Your task to perform on an android device: open app "Google Chat" Image 0: 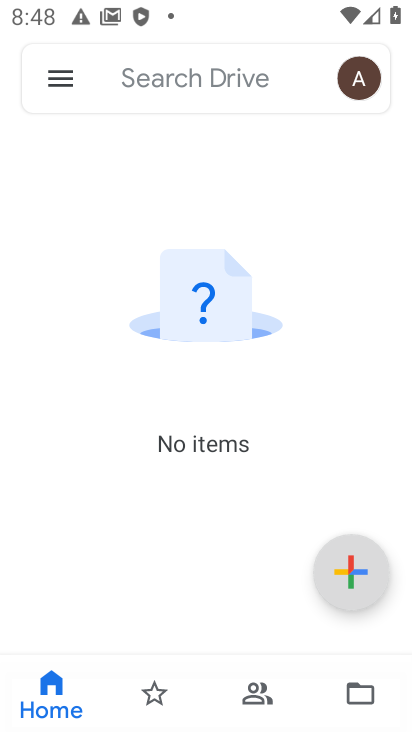
Step 0: press home button
Your task to perform on an android device: open app "Google Chat" Image 1: 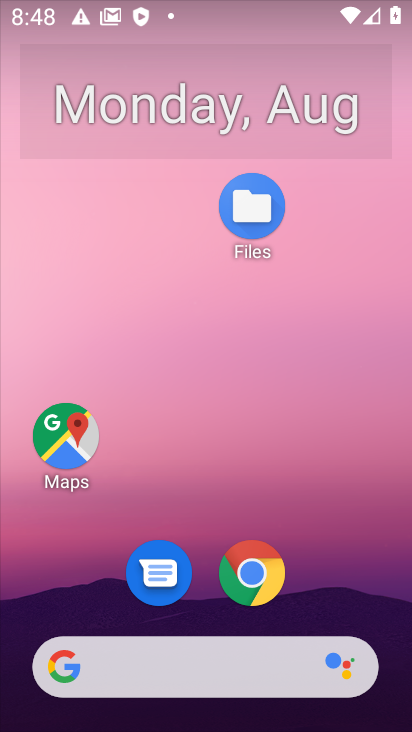
Step 1: drag from (149, 677) to (152, 92)
Your task to perform on an android device: open app "Google Chat" Image 2: 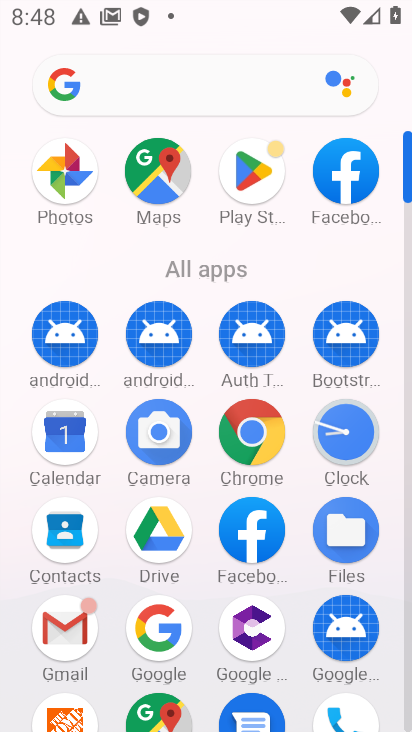
Step 2: drag from (291, 558) to (278, 214)
Your task to perform on an android device: open app "Google Chat" Image 3: 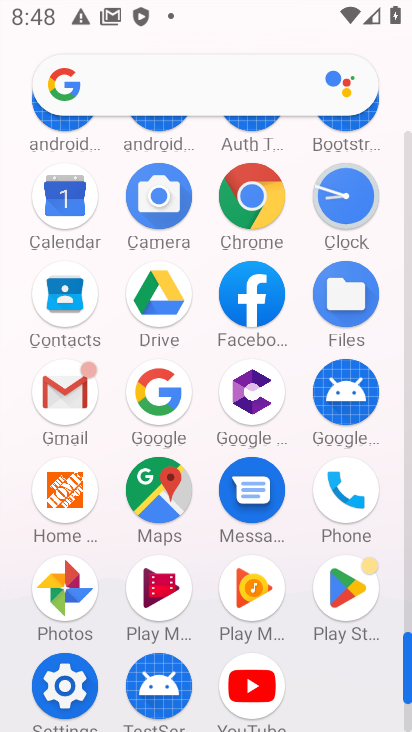
Step 3: click (351, 597)
Your task to perform on an android device: open app "Google Chat" Image 4: 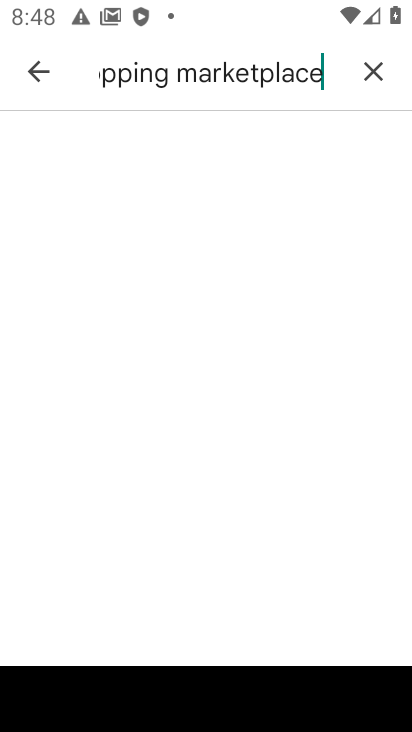
Step 4: click (370, 70)
Your task to perform on an android device: open app "Google Chat" Image 5: 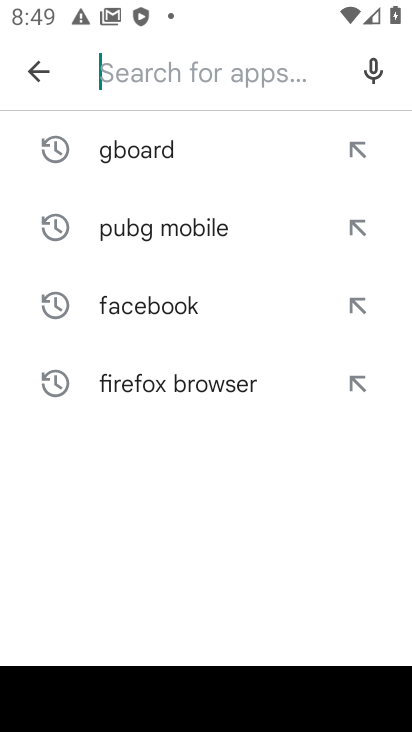
Step 5: type "google chat"
Your task to perform on an android device: open app "Google Chat" Image 6: 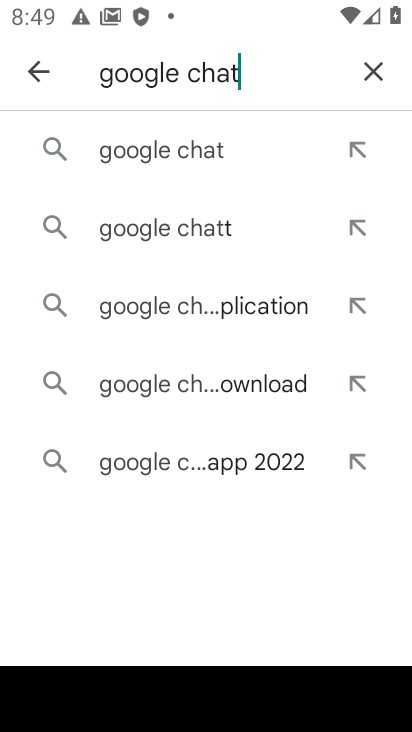
Step 6: click (195, 161)
Your task to perform on an android device: open app "Google Chat" Image 7: 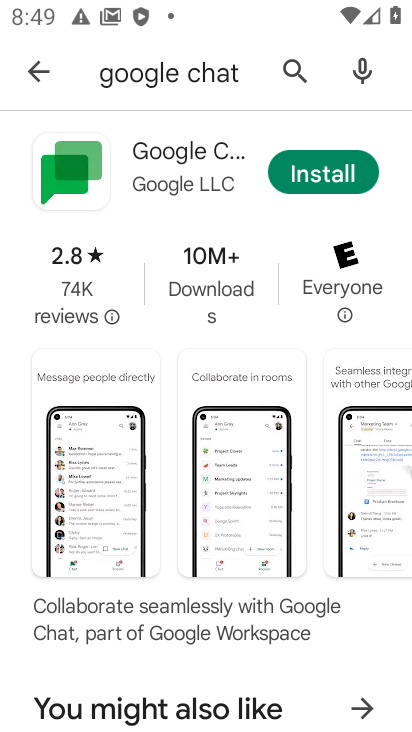
Step 7: click (328, 181)
Your task to perform on an android device: open app "Google Chat" Image 8: 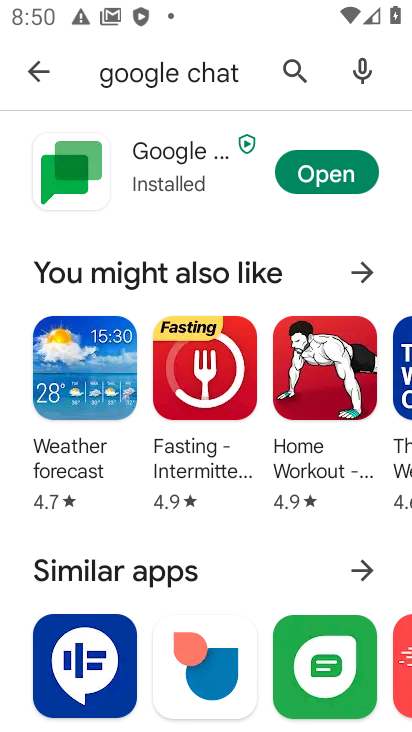
Step 8: click (337, 156)
Your task to perform on an android device: open app "Google Chat" Image 9: 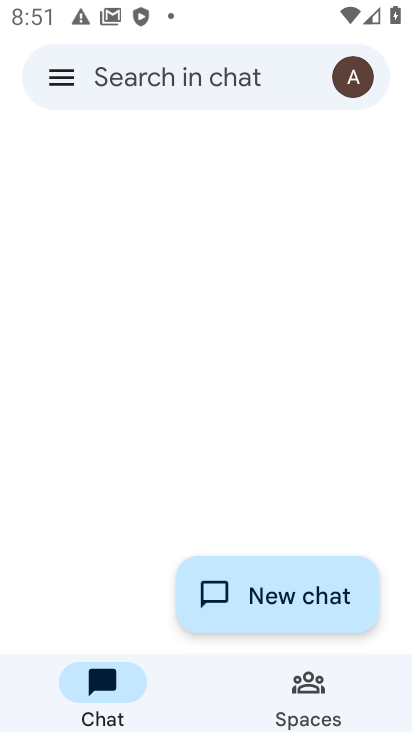
Step 9: task complete